Your task to perform on an android device: move a message to another label in the gmail app Image 0: 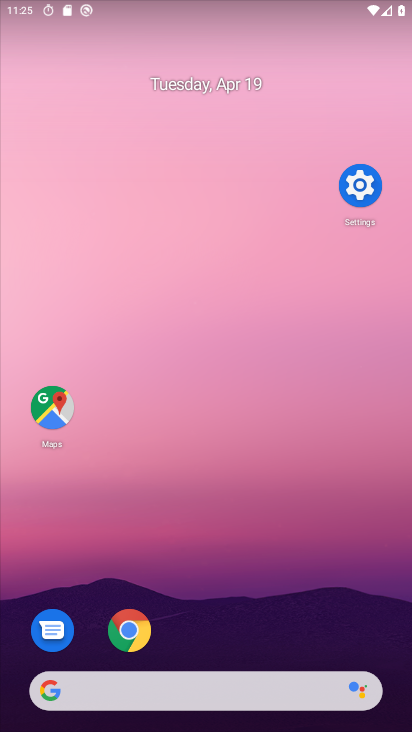
Step 0: drag from (209, 608) to (221, 253)
Your task to perform on an android device: move a message to another label in the gmail app Image 1: 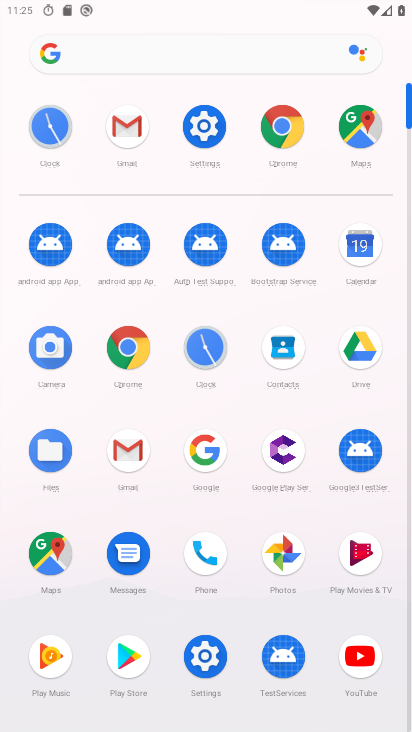
Step 1: click (127, 467)
Your task to perform on an android device: move a message to another label in the gmail app Image 2: 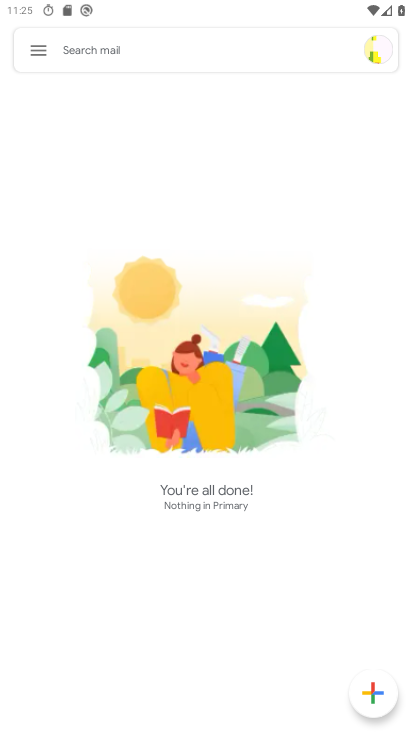
Step 2: click (41, 53)
Your task to perform on an android device: move a message to another label in the gmail app Image 3: 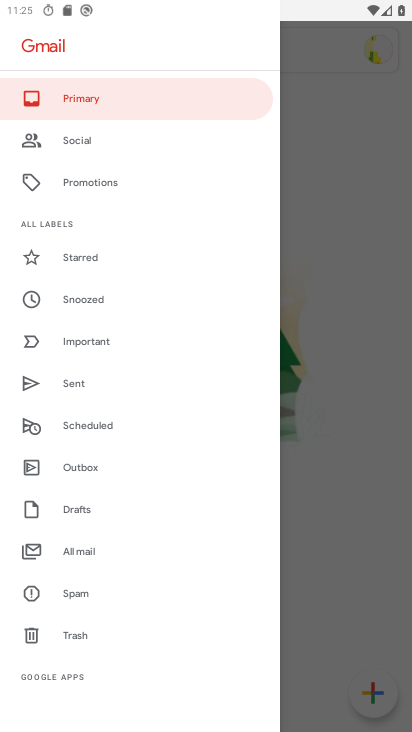
Step 3: drag from (156, 596) to (203, 366)
Your task to perform on an android device: move a message to another label in the gmail app Image 4: 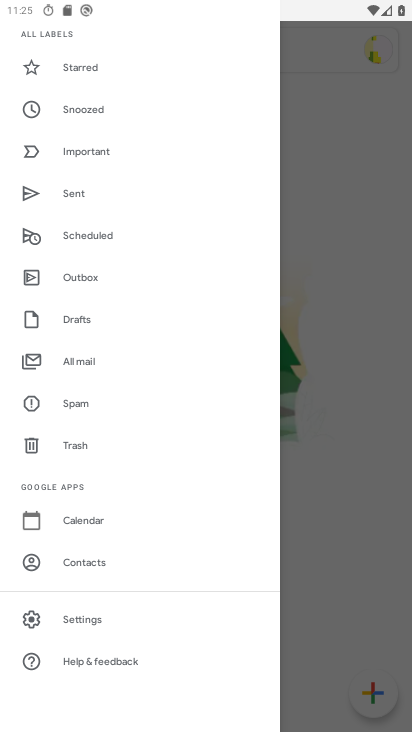
Step 4: click (129, 358)
Your task to perform on an android device: move a message to another label in the gmail app Image 5: 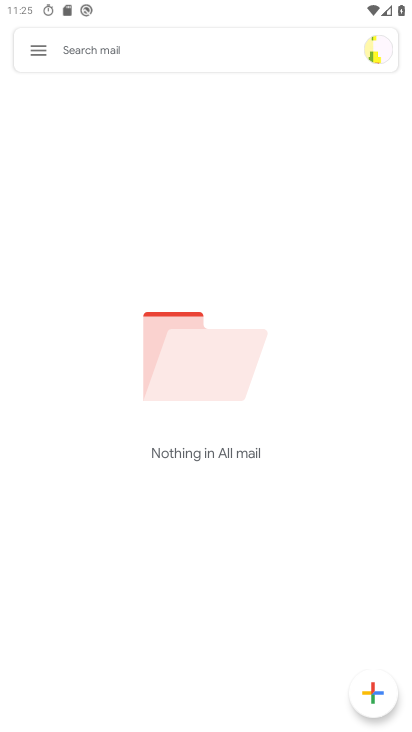
Step 5: task complete